Your task to perform on an android device: turn on translation in the chrome app Image 0: 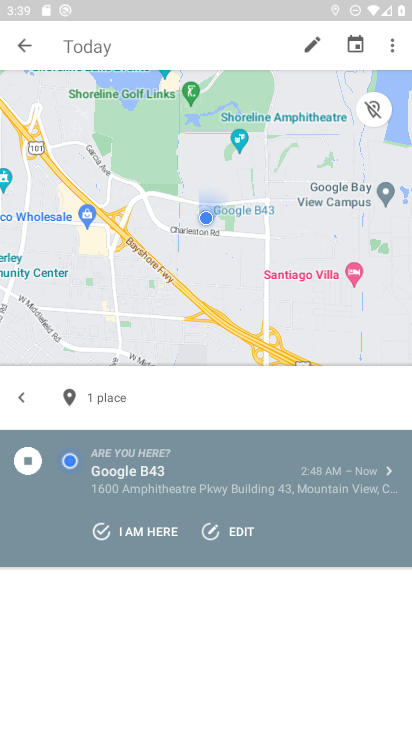
Step 0: press back button
Your task to perform on an android device: turn on translation in the chrome app Image 1: 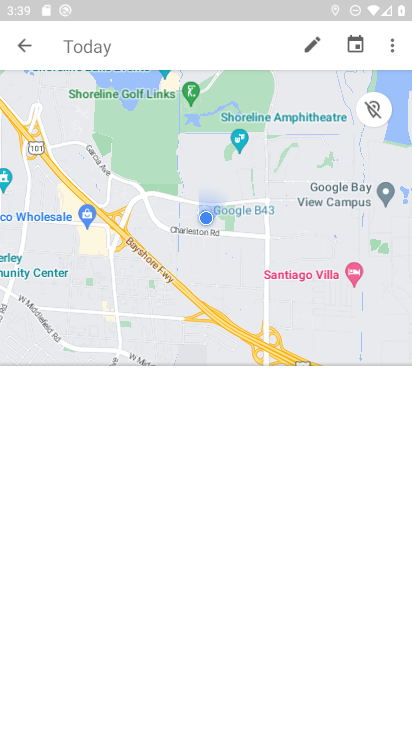
Step 1: press back button
Your task to perform on an android device: turn on translation in the chrome app Image 2: 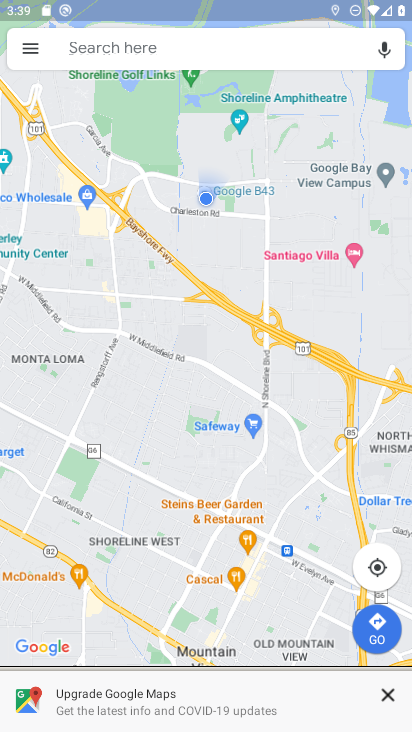
Step 2: press back button
Your task to perform on an android device: turn on translation in the chrome app Image 3: 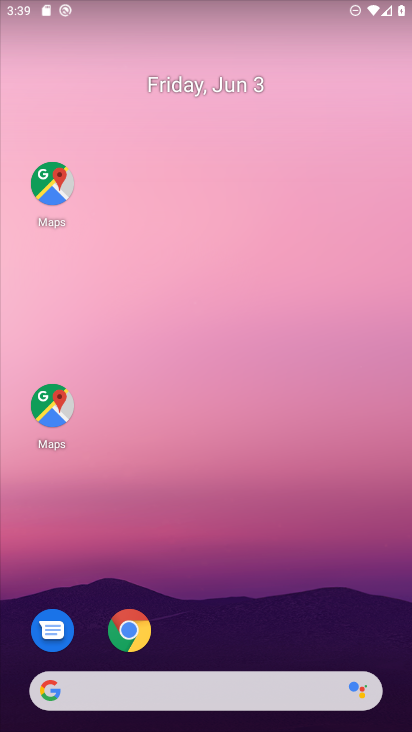
Step 3: press home button
Your task to perform on an android device: turn on translation in the chrome app Image 4: 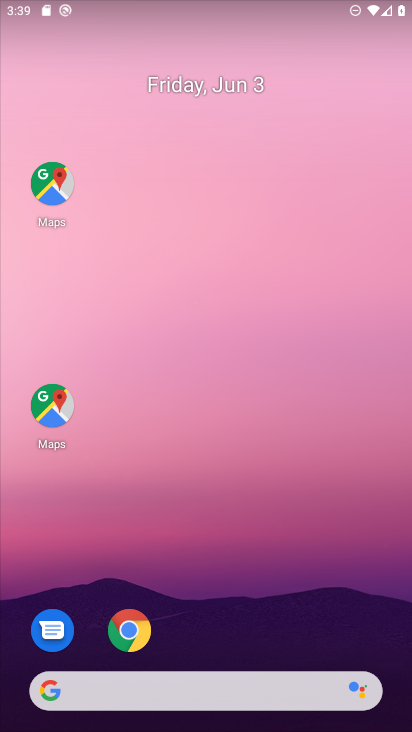
Step 4: drag from (279, 713) to (179, 61)
Your task to perform on an android device: turn on translation in the chrome app Image 5: 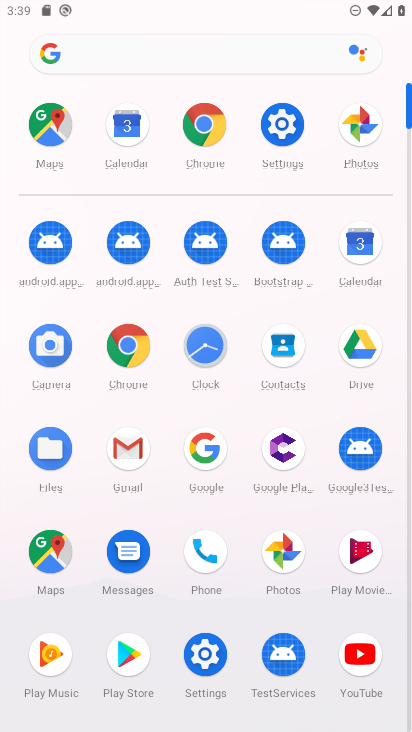
Step 5: click (193, 131)
Your task to perform on an android device: turn on translation in the chrome app Image 6: 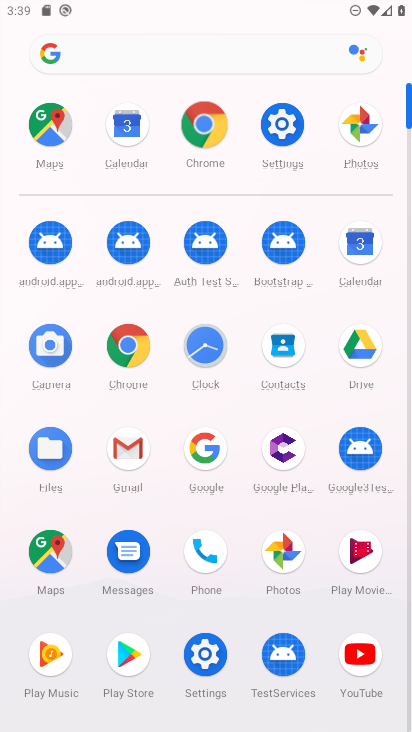
Step 6: click (194, 131)
Your task to perform on an android device: turn on translation in the chrome app Image 7: 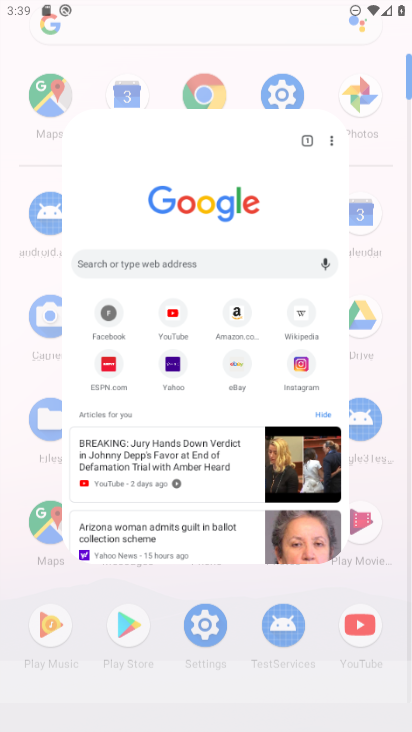
Step 7: click (199, 133)
Your task to perform on an android device: turn on translation in the chrome app Image 8: 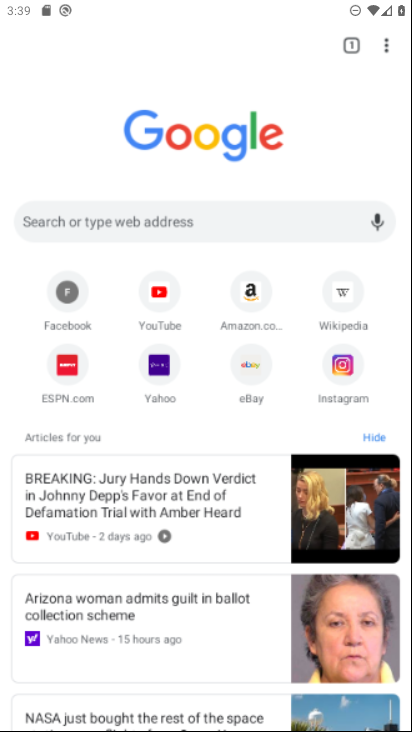
Step 8: click (202, 134)
Your task to perform on an android device: turn on translation in the chrome app Image 9: 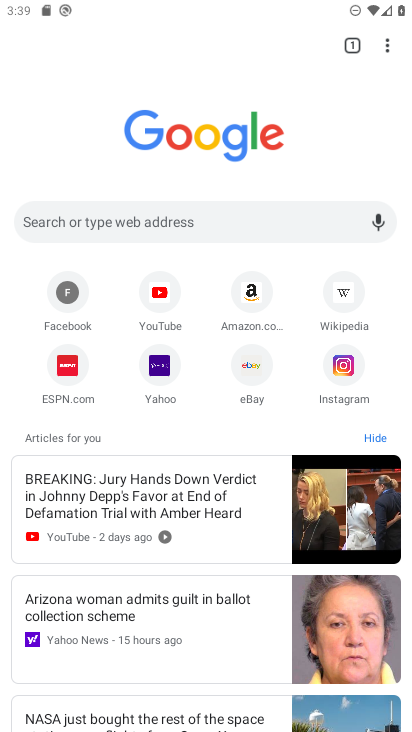
Step 9: drag from (383, 46) to (217, 369)
Your task to perform on an android device: turn on translation in the chrome app Image 10: 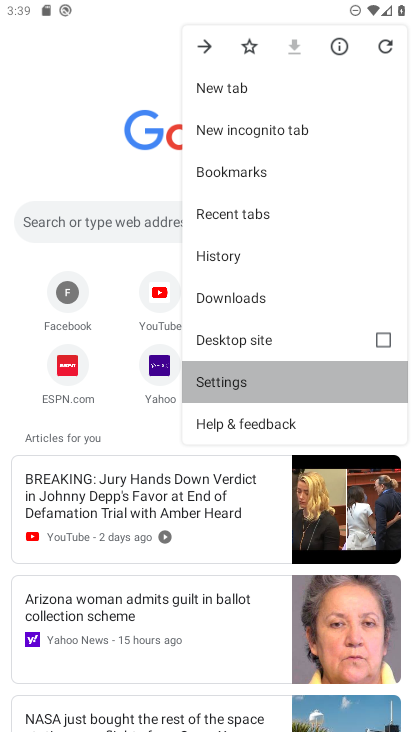
Step 10: click (218, 368)
Your task to perform on an android device: turn on translation in the chrome app Image 11: 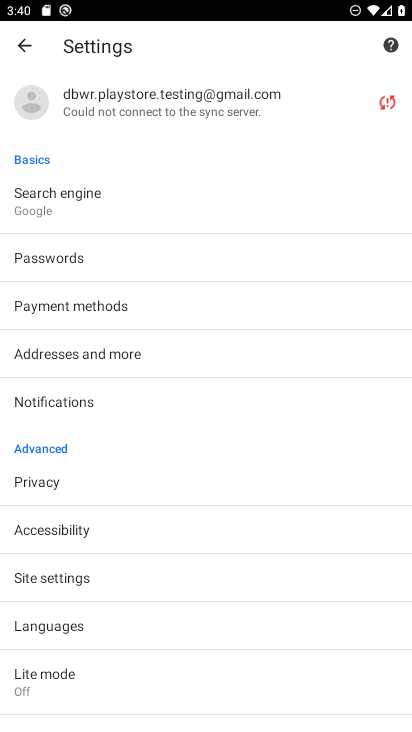
Step 11: click (54, 617)
Your task to perform on an android device: turn on translation in the chrome app Image 12: 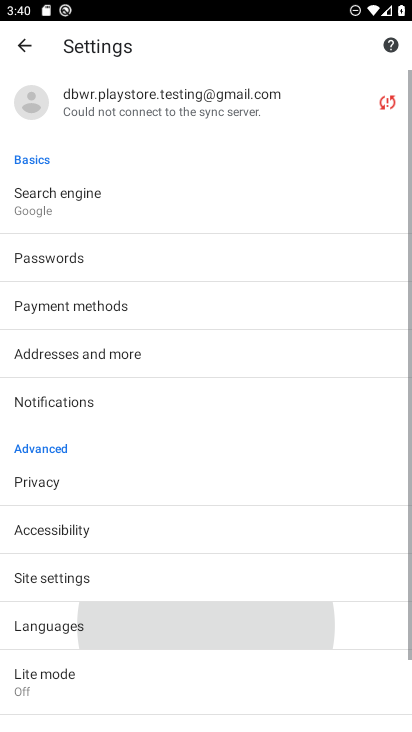
Step 12: click (54, 617)
Your task to perform on an android device: turn on translation in the chrome app Image 13: 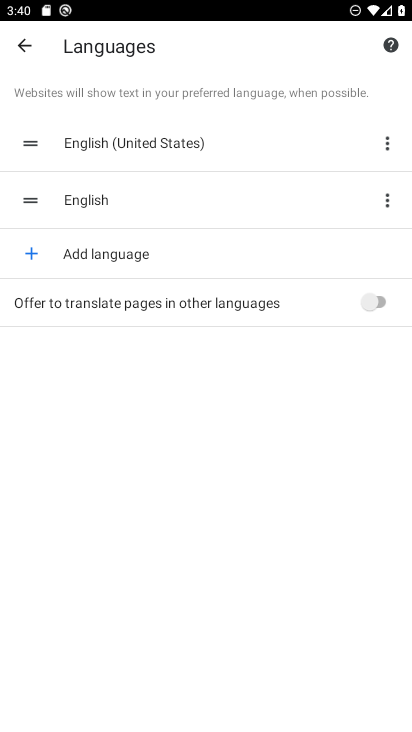
Step 13: click (367, 318)
Your task to perform on an android device: turn on translation in the chrome app Image 14: 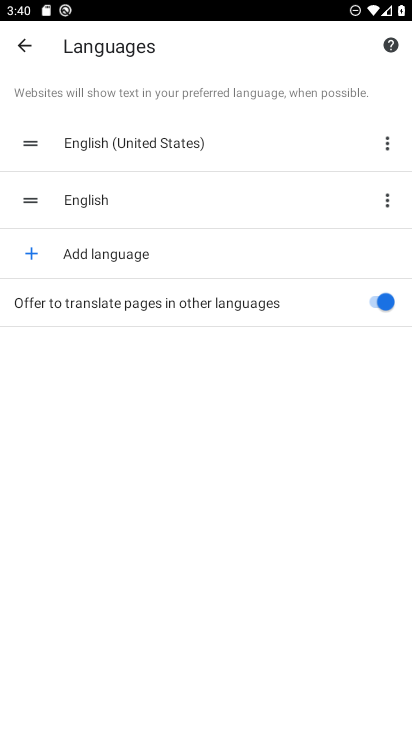
Step 14: task complete